Your task to perform on an android device: toggle notification dots Image 0: 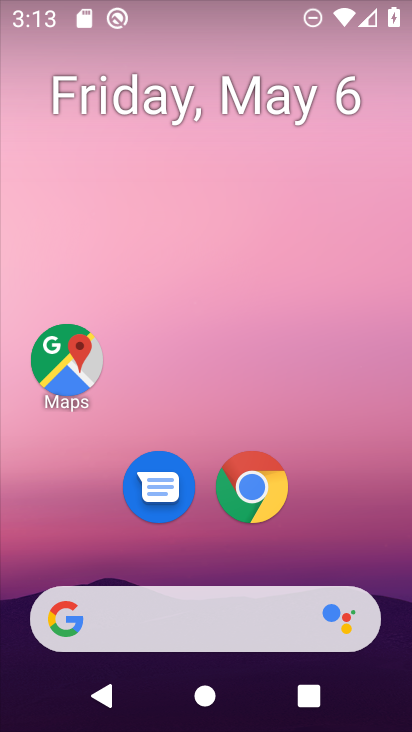
Step 0: drag from (327, 581) to (310, 40)
Your task to perform on an android device: toggle notification dots Image 1: 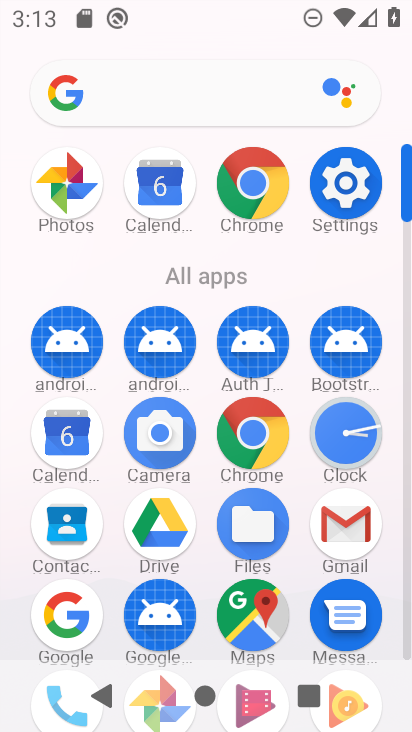
Step 1: click (348, 198)
Your task to perform on an android device: toggle notification dots Image 2: 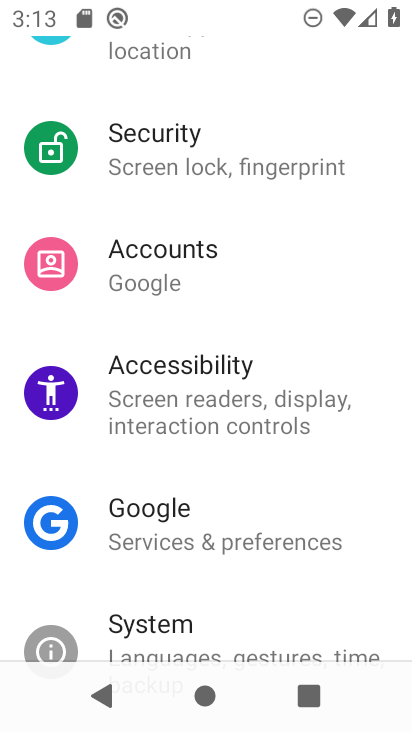
Step 2: drag from (217, 396) to (270, 652)
Your task to perform on an android device: toggle notification dots Image 3: 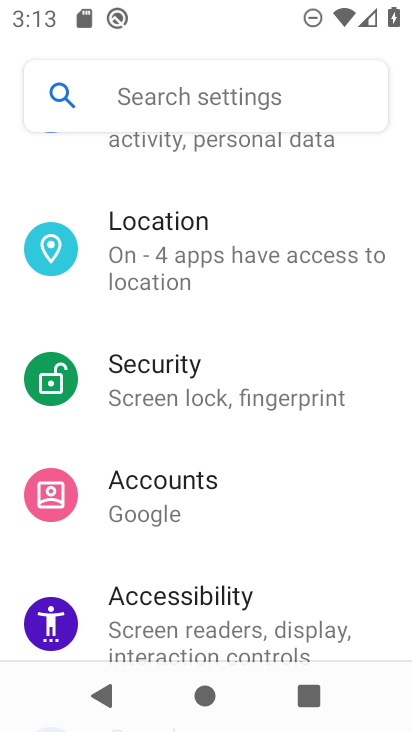
Step 3: drag from (239, 343) to (326, 566)
Your task to perform on an android device: toggle notification dots Image 4: 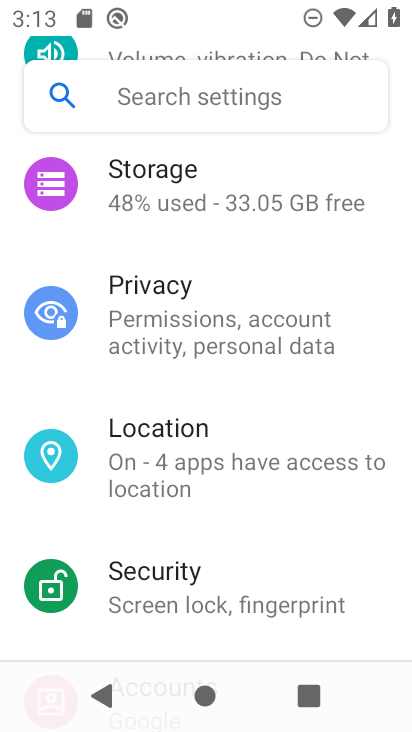
Step 4: drag from (263, 234) to (370, 531)
Your task to perform on an android device: toggle notification dots Image 5: 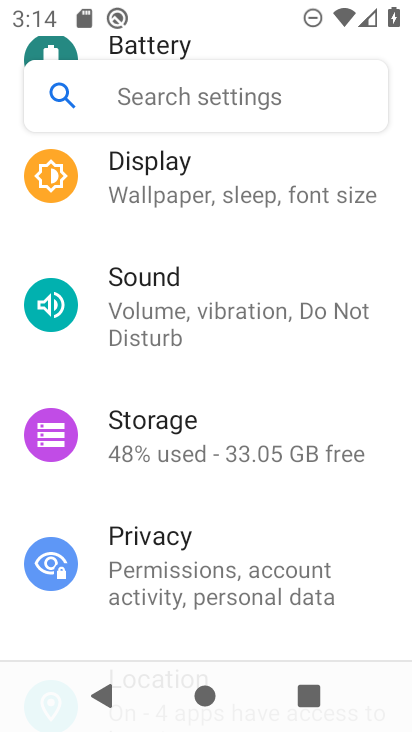
Step 5: drag from (279, 256) to (294, 493)
Your task to perform on an android device: toggle notification dots Image 6: 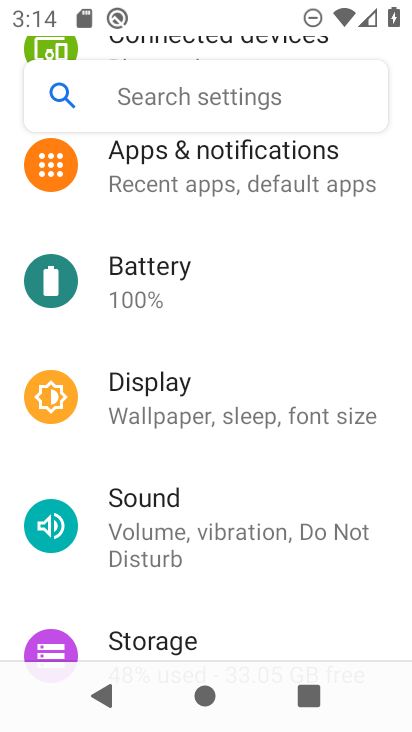
Step 6: click (286, 180)
Your task to perform on an android device: toggle notification dots Image 7: 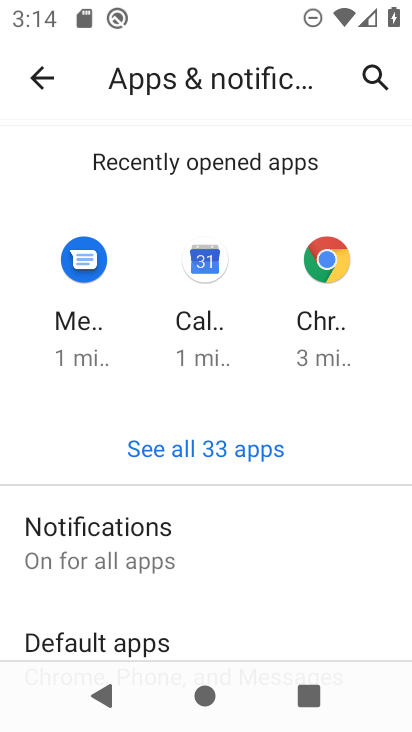
Step 7: click (199, 545)
Your task to perform on an android device: toggle notification dots Image 8: 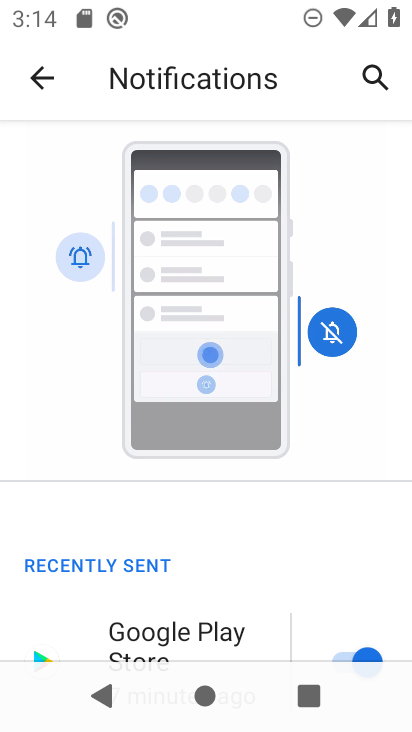
Step 8: drag from (219, 592) to (254, 251)
Your task to perform on an android device: toggle notification dots Image 9: 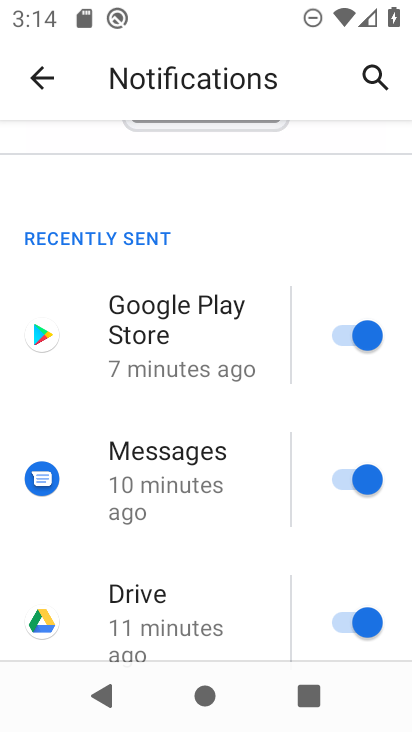
Step 9: drag from (250, 636) to (249, 328)
Your task to perform on an android device: toggle notification dots Image 10: 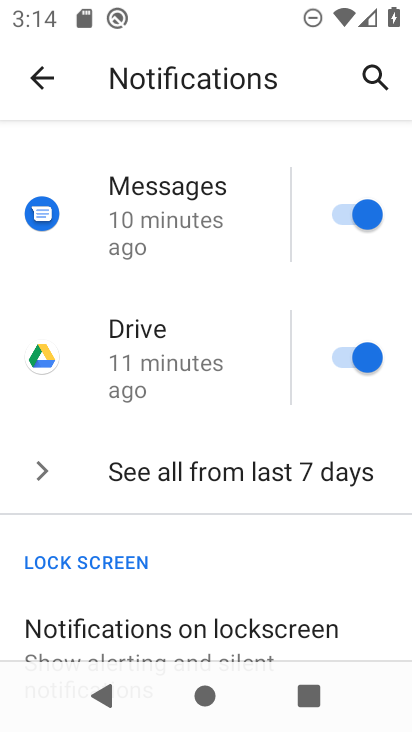
Step 10: drag from (174, 607) to (215, 368)
Your task to perform on an android device: toggle notification dots Image 11: 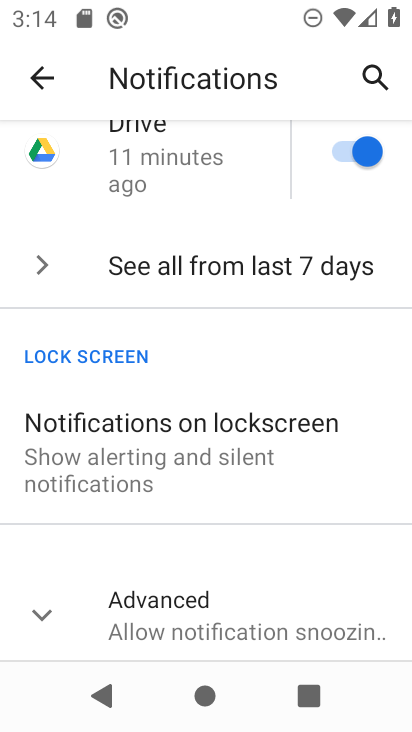
Step 11: click (214, 630)
Your task to perform on an android device: toggle notification dots Image 12: 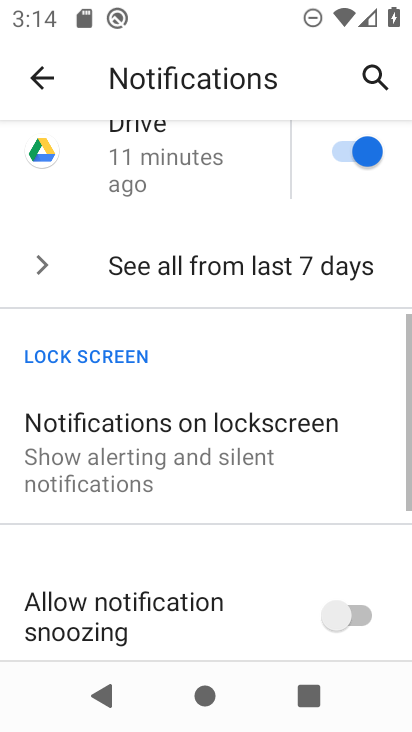
Step 12: drag from (216, 632) to (231, 209)
Your task to perform on an android device: toggle notification dots Image 13: 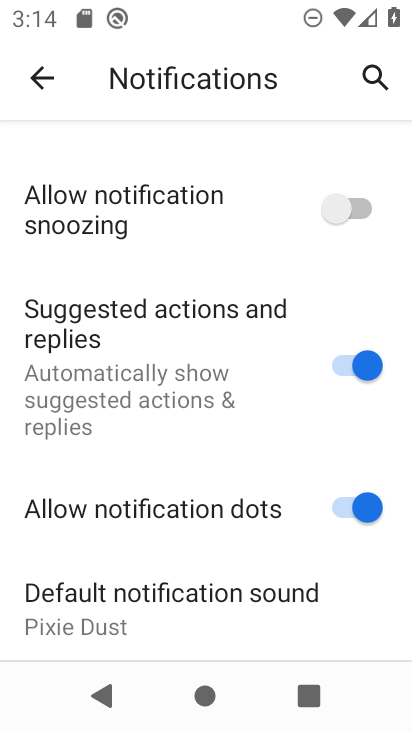
Step 13: click (340, 505)
Your task to perform on an android device: toggle notification dots Image 14: 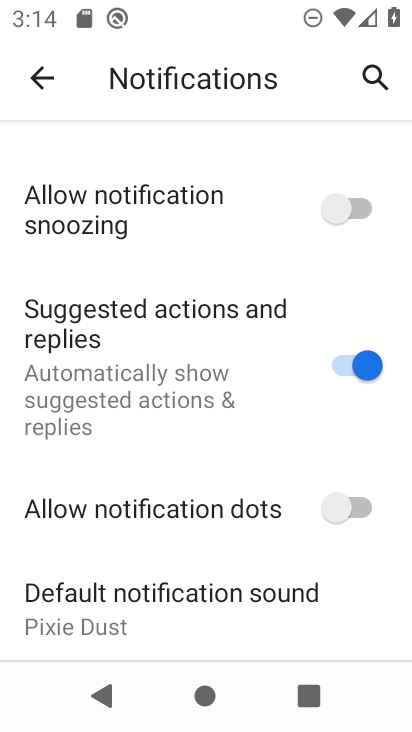
Step 14: task complete